Your task to perform on an android device: Open calendar and show me the third week of next month Image 0: 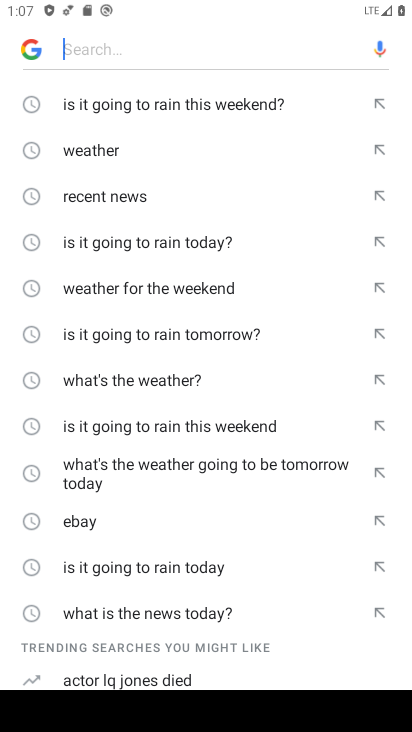
Step 0: press home button
Your task to perform on an android device: Open calendar and show me the third week of next month Image 1: 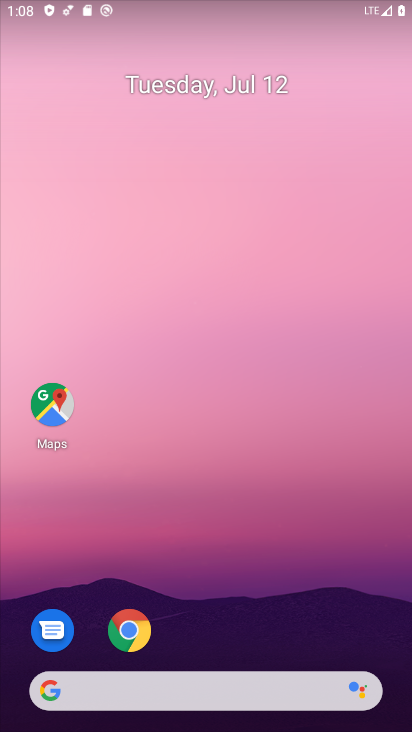
Step 1: drag from (317, 624) to (296, 62)
Your task to perform on an android device: Open calendar and show me the third week of next month Image 2: 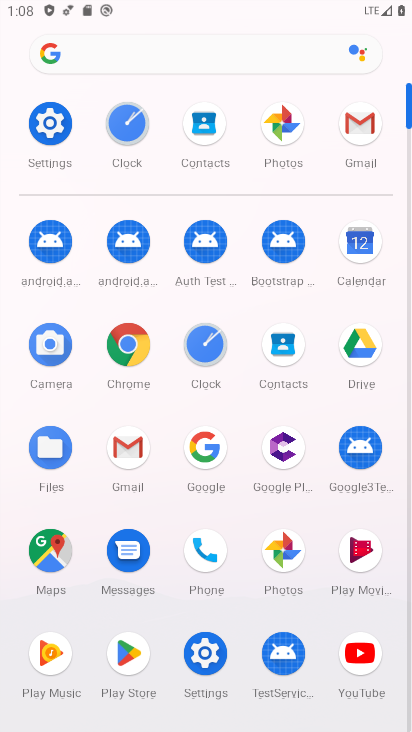
Step 2: click (358, 235)
Your task to perform on an android device: Open calendar and show me the third week of next month Image 3: 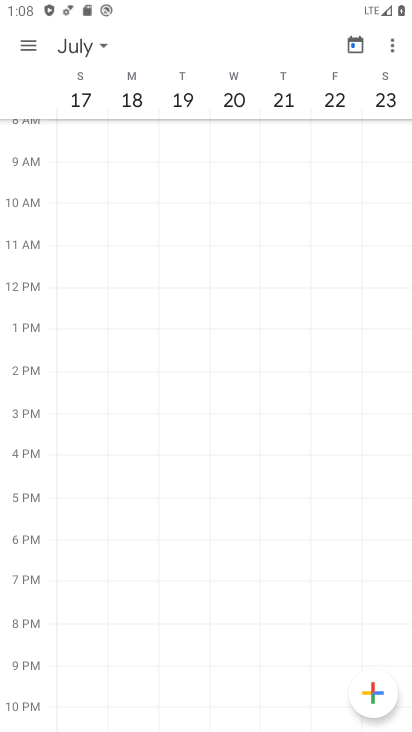
Step 3: click (100, 44)
Your task to perform on an android device: Open calendar and show me the third week of next month Image 4: 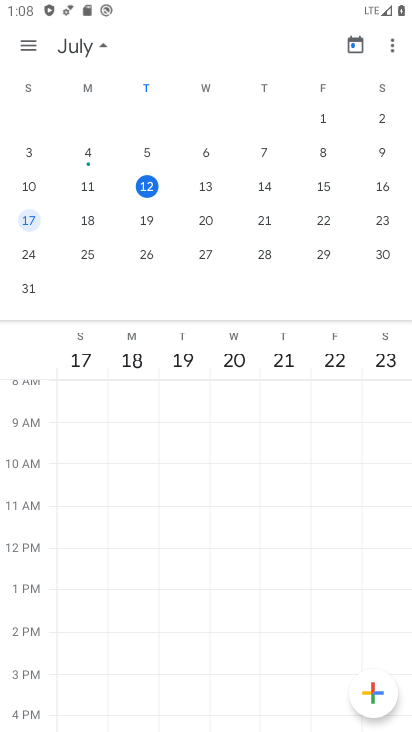
Step 4: drag from (386, 242) to (114, 248)
Your task to perform on an android device: Open calendar and show me the third week of next month Image 5: 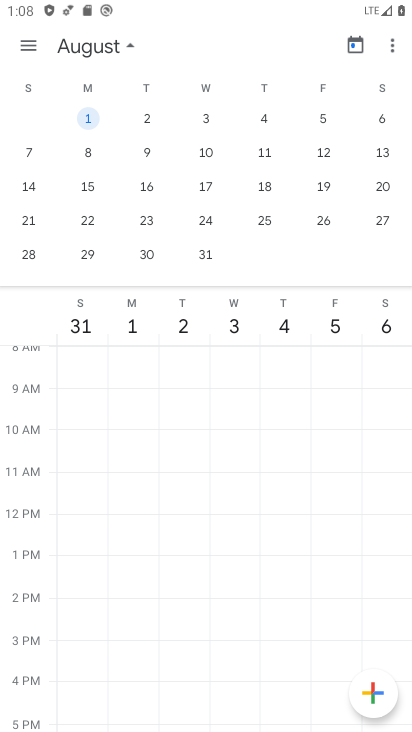
Step 5: click (32, 223)
Your task to perform on an android device: Open calendar and show me the third week of next month Image 6: 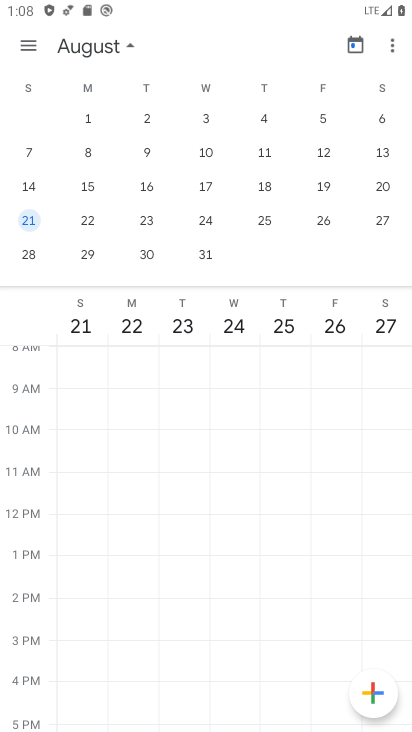
Step 6: task complete